Your task to perform on an android device: set default search engine in the chrome app Image 0: 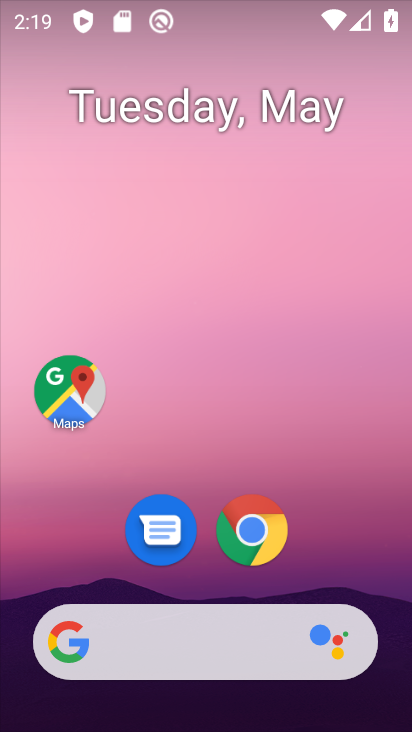
Step 0: drag from (17, 605) to (173, 243)
Your task to perform on an android device: set default search engine in the chrome app Image 1: 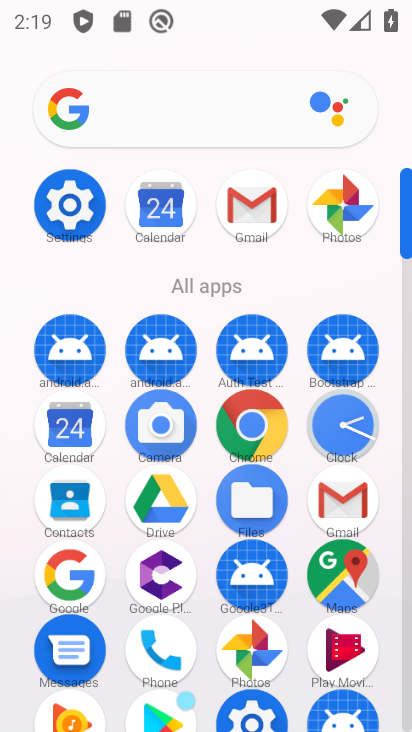
Step 1: click (61, 209)
Your task to perform on an android device: set default search engine in the chrome app Image 2: 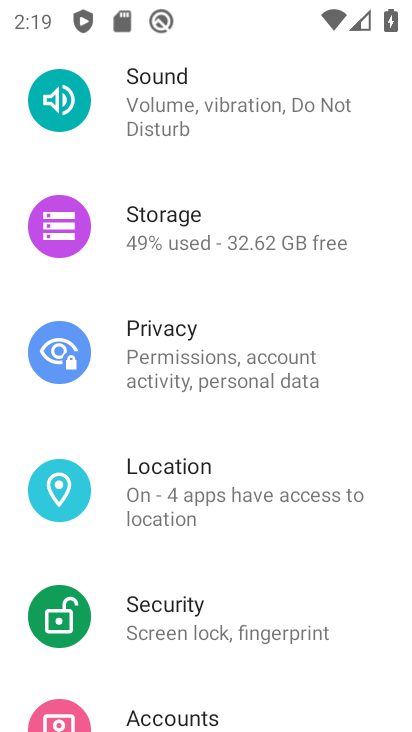
Step 2: press home button
Your task to perform on an android device: set default search engine in the chrome app Image 3: 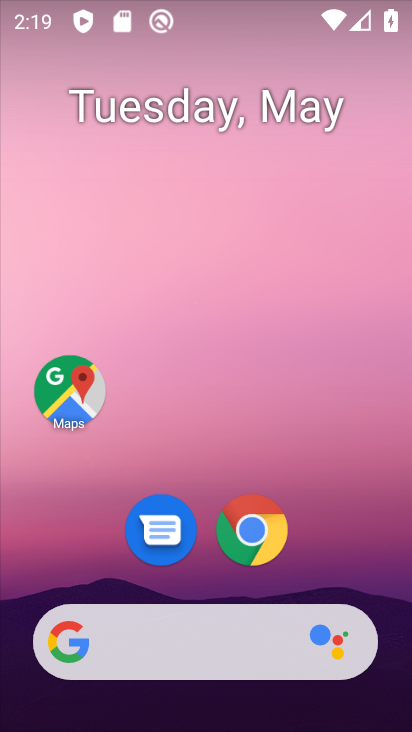
Step 3: click (264, 541)
Your task to perform on an android device: set default search engine in the chrome app Image 4: 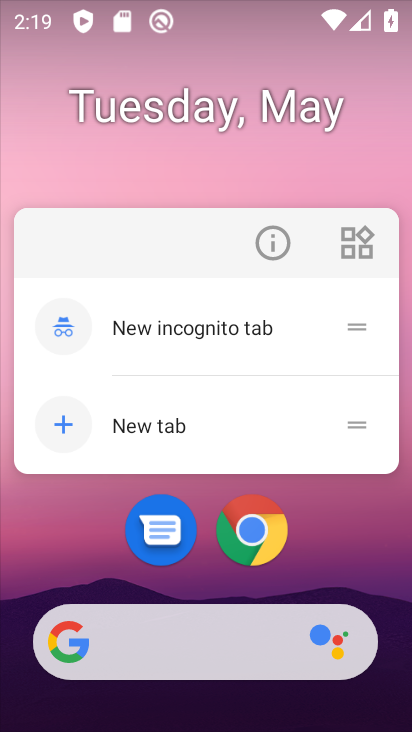
Step 4: click (246, 528)
Your task to perform on an android device: set default search engine in the chrome app Image 5: 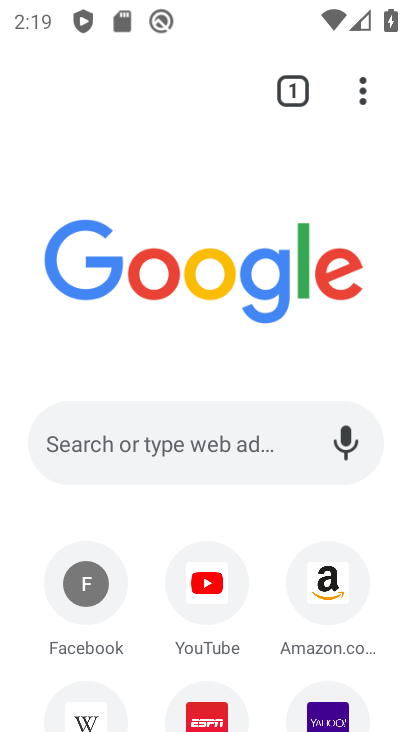
Step 5: click (366, 95)
Your task to perform on an android device: set default search engine in the chrome app Image 6: 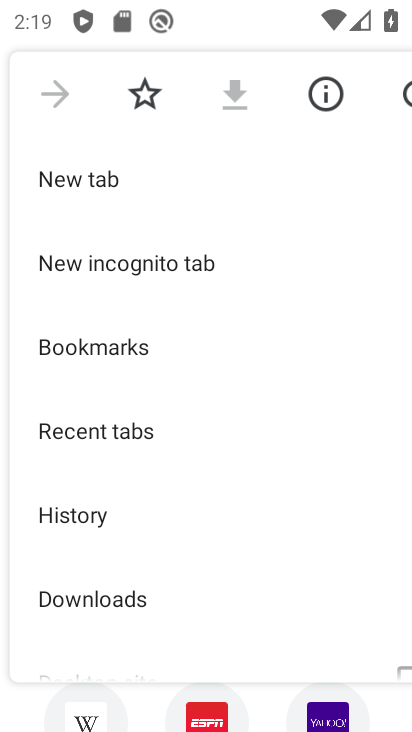
Step 6: drag from (109, 601) to (233, 187)
Your task to perform on an android device: set default search engine in the chrome app Image 7: 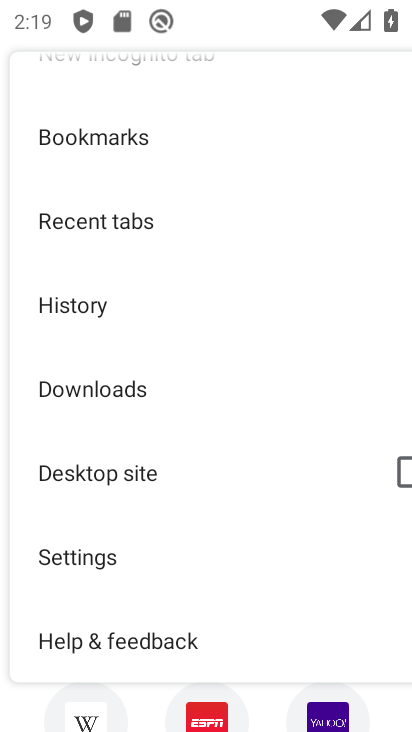
Step 7: click (65, 562)
Your task to perform on an android device: set default search engine in the chrome app Image 8: 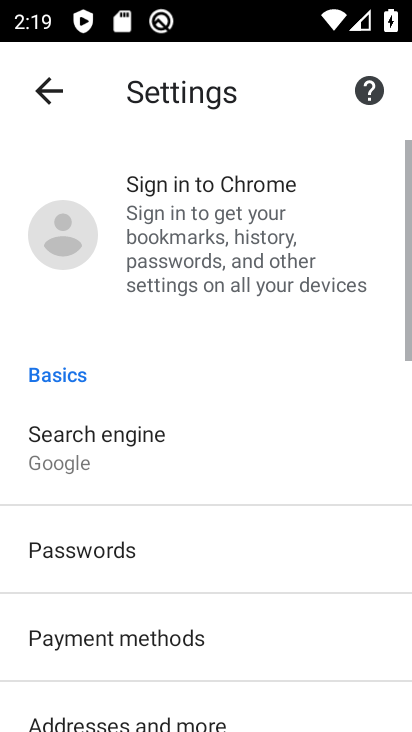
Step 8: click (109, 476)
Your task to perform on an android device: set default search engine in the chrome app Image 9: 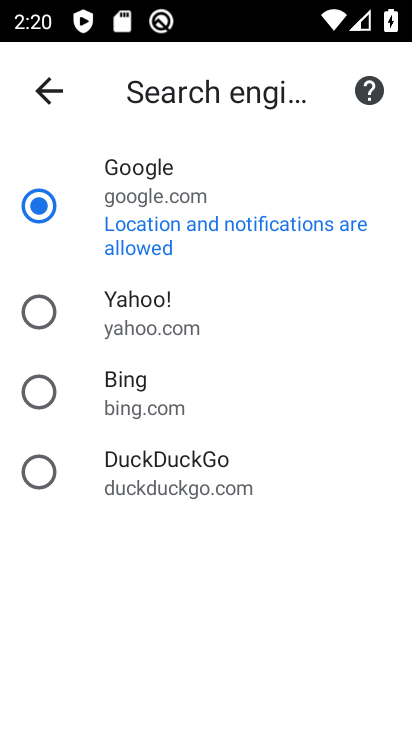
Step 9: click (39, 206)
Your task to perform on an android device: set default search engine in the chrome app Image 10: 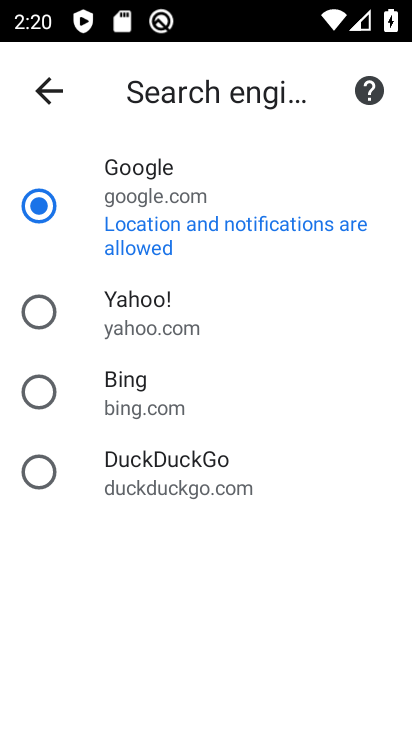
Step 10: task complete